Your task to perform on an android device: Show me popular games on the Play Store Image 0: 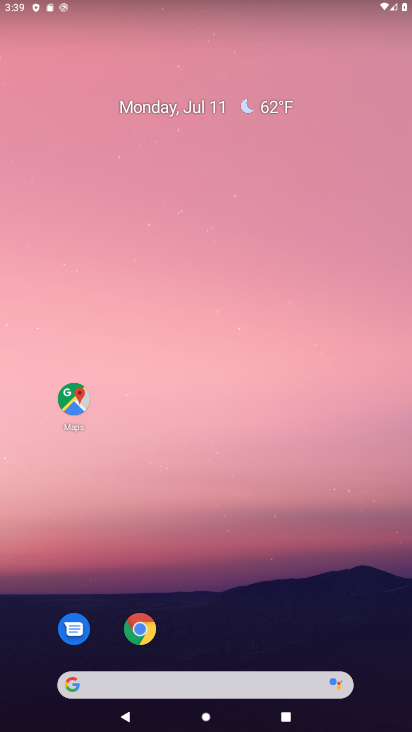
Step 0: drag from (222, 629) to (208, 155)
Your task to perform on an android device: Show me popular games on the Play Store Image 1: 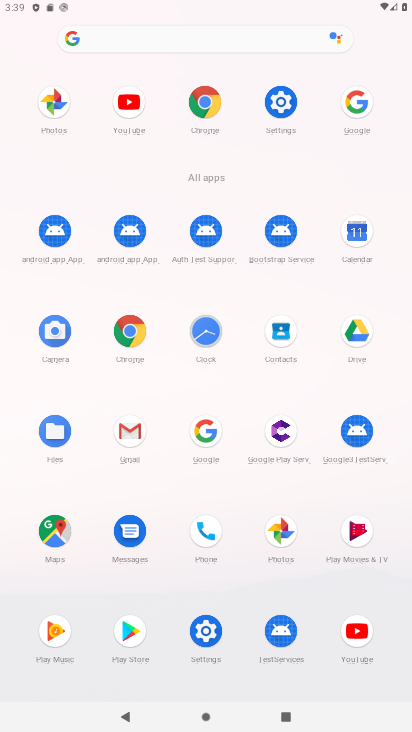
Step 1: click (139, 633)
Your task to perform on an android device: Show me popular games on the Play Store Image 2: 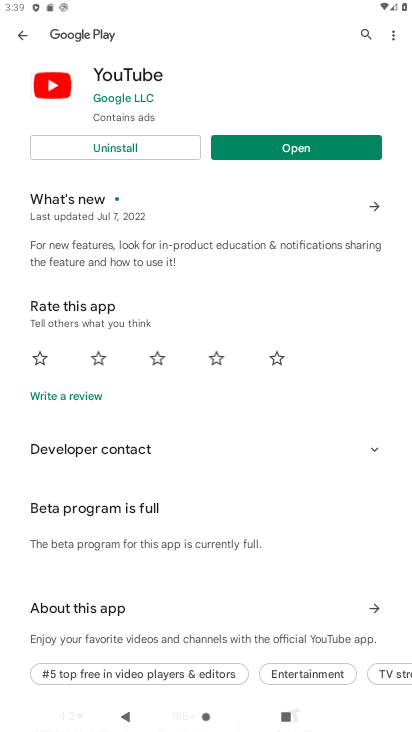
Step 2: click (20, 33)
Your task to perform on an android device: Show me popular games on the Play Store Image 3: 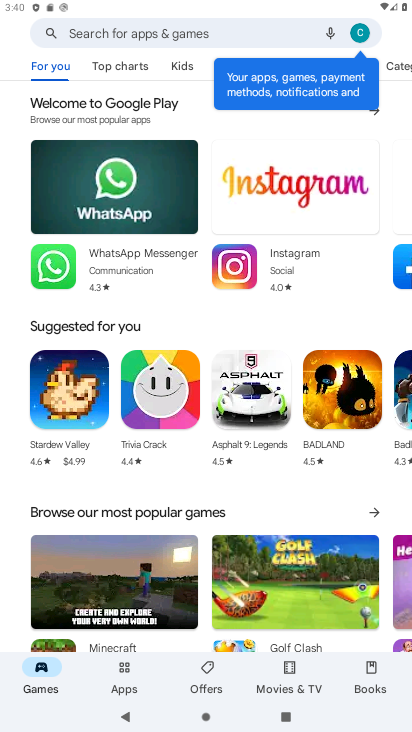
Step 3: click (122, 680)
Your task to perform on an android device: Show me popular games on the Play Store Image 4: 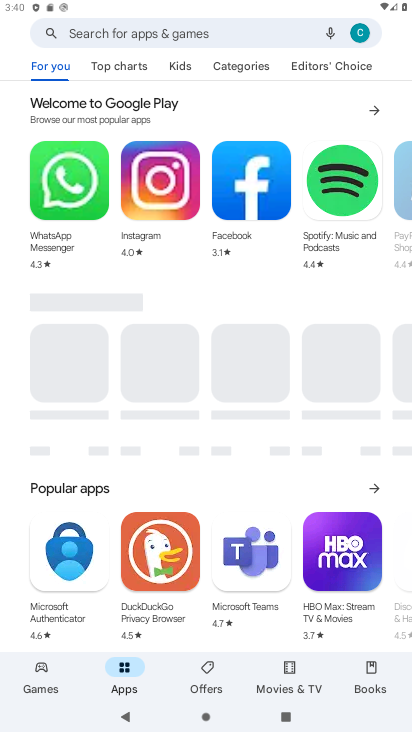
Step 4: click (37, 674)
Your task to perform on an android device: Show me popular games on the Play Store Image 5: 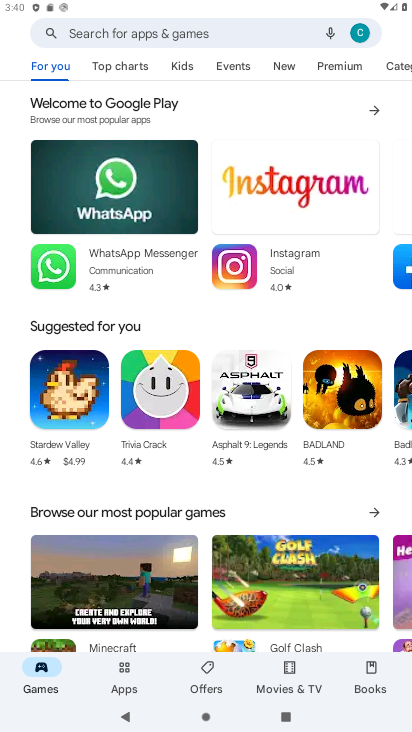
Step 5: click (109, 74)
Your task to perform on an android device: Show me popular games on the Play Store Image 6: 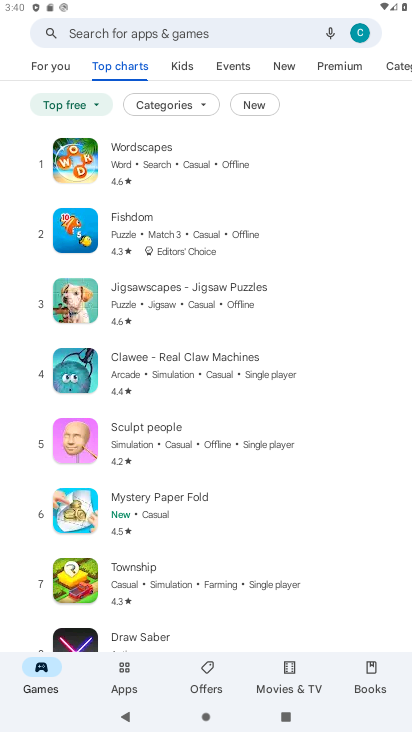
Step 6: task complete